Your task to perform on an android device: turn on translation in the chrome app Image 0: 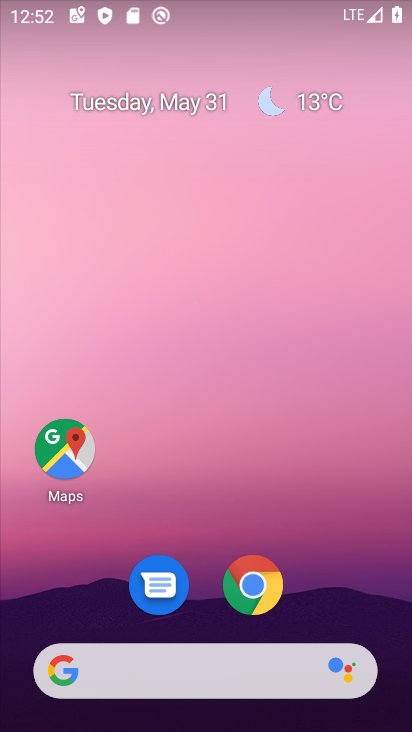
Step 0: click (51, 440)
Your task to perform on an android device: turn on translation in the chrome app Image 1: 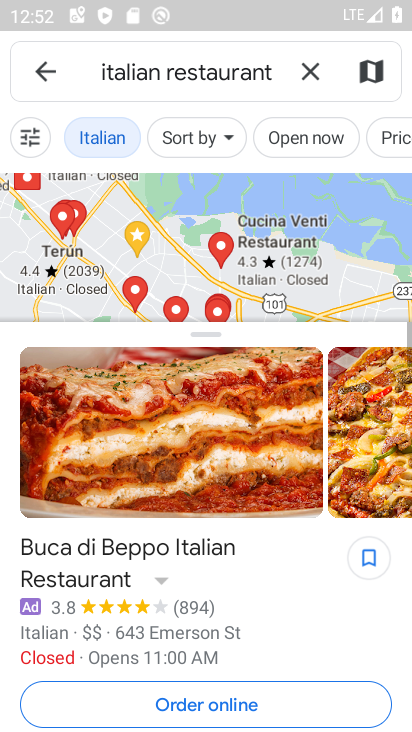
Step 1: press home button
Your task to perform on an android device: turn on translation in the chrome app Image 2: 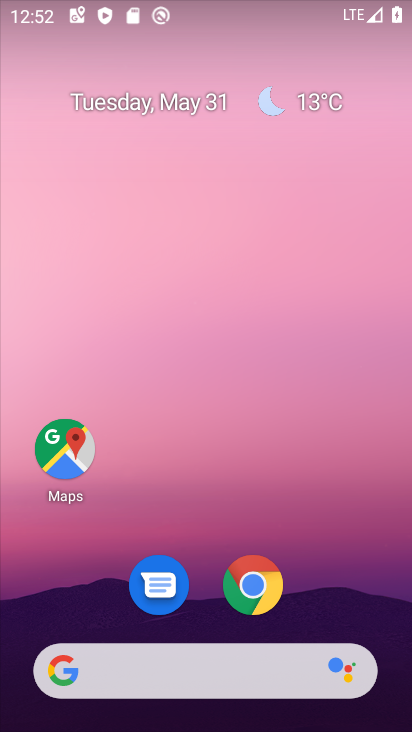
Step 2: click (264, 591)
Your task to perform on an android device: turn on translation in the chrome app Image 3: 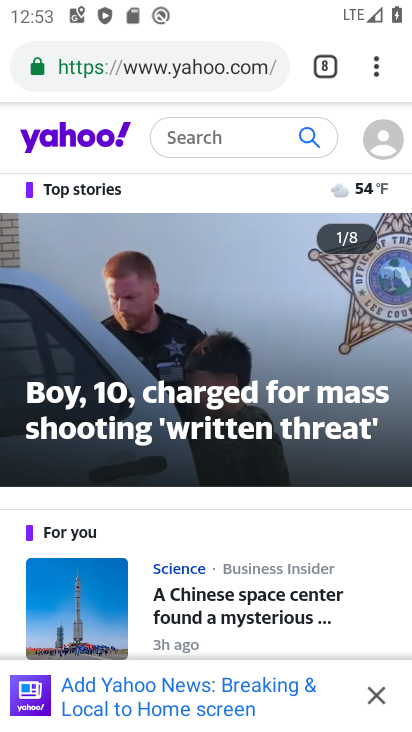
Step 3: click (365, 65)
Your task to perform on an android device: turn on translation in the chrome app Image 4: 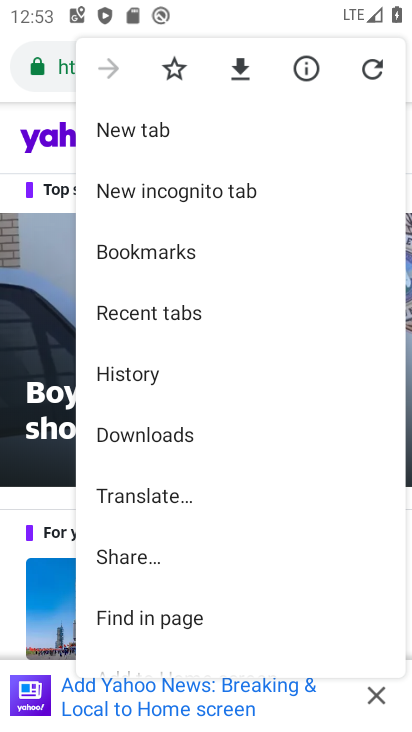
Step 4: drag from (218, 585) to (265, 282)
Your task to perform on an android device: turn on translation in the chrome app Image 5: 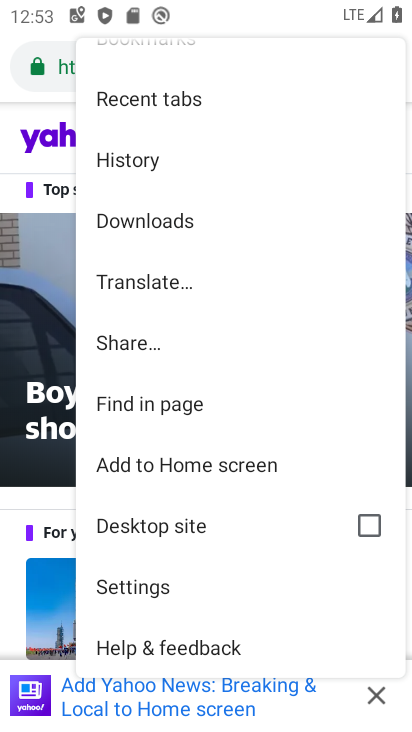
Step 5: click (172, 593)
Your task to perform on an android device: turn on translation in the chrome app Image 6: 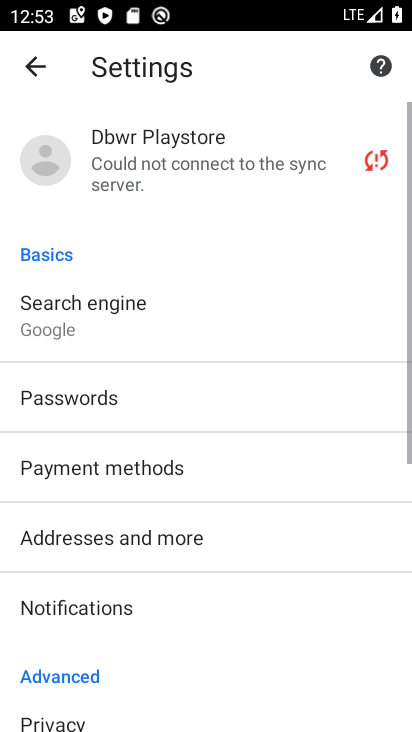
Step 6: drag from (260, 581) to (302, 136)
Your task to perform on an android device: turn on translation in the chrome app Image 7: 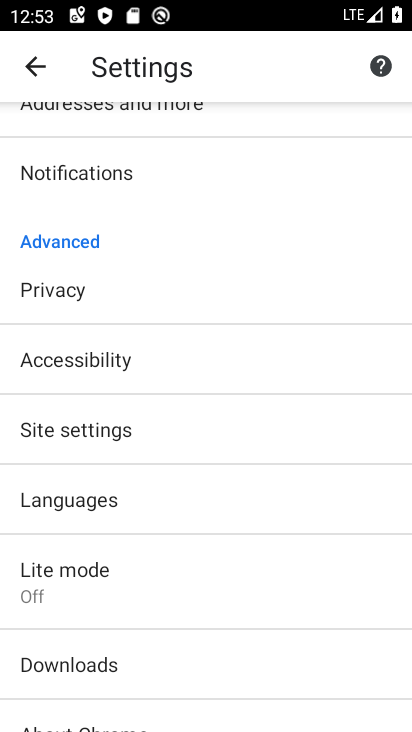
Step 7: click (166, 506)
Your task to perform on an android device: turn on translation in the chrome app Image 8: 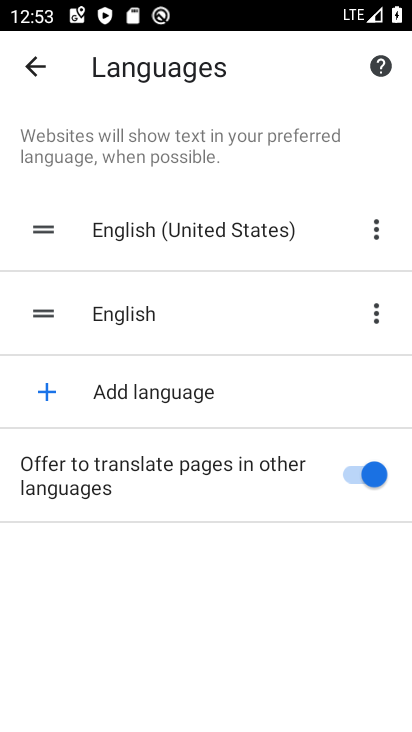
Step 8: task complete